Your task to perform on an android device: What's on my calendar today? Image 0: 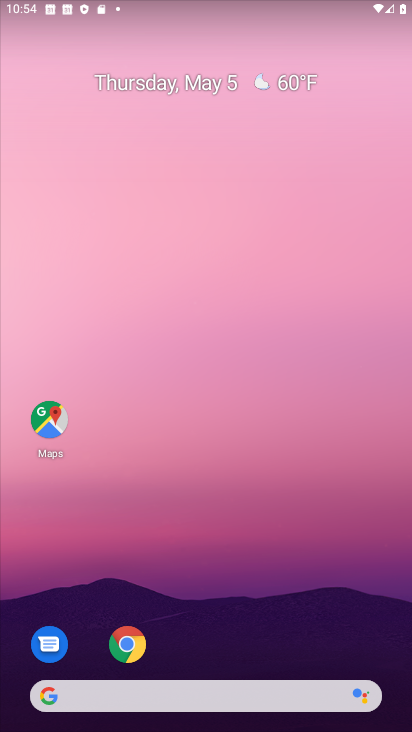
Step 0: drag from (200, 629) to (291, 172)
Your task to perform on an android device: What's on my calendar today? Image 1: 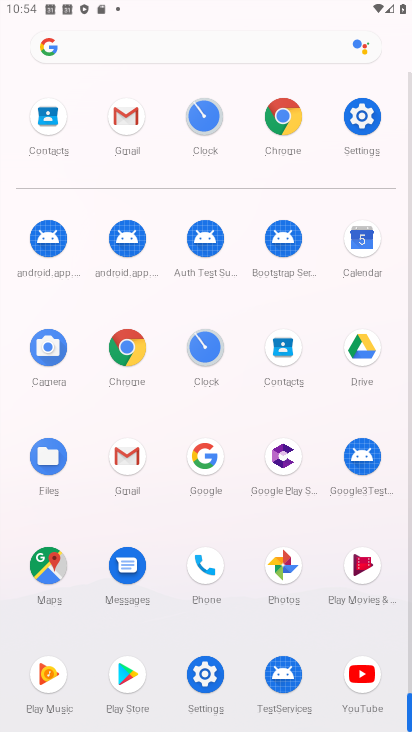
Step 1: click (358, 248)
Your task to perform on an android device: What's on my calendar today? Image 2: 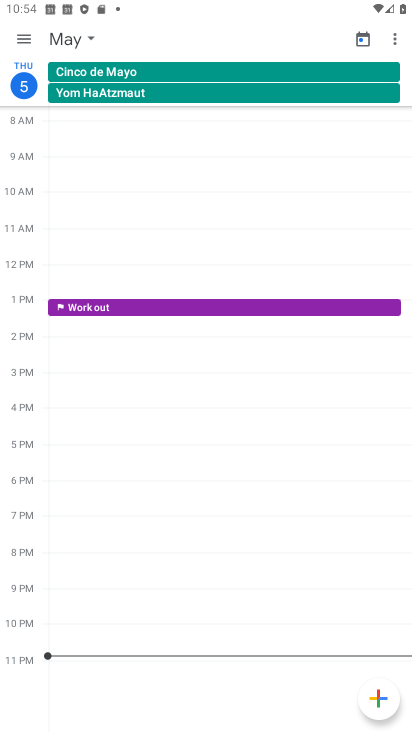
Step 2: click (23, 35)
Your task to perform on an android device: What's on my calendar today? Image 3: 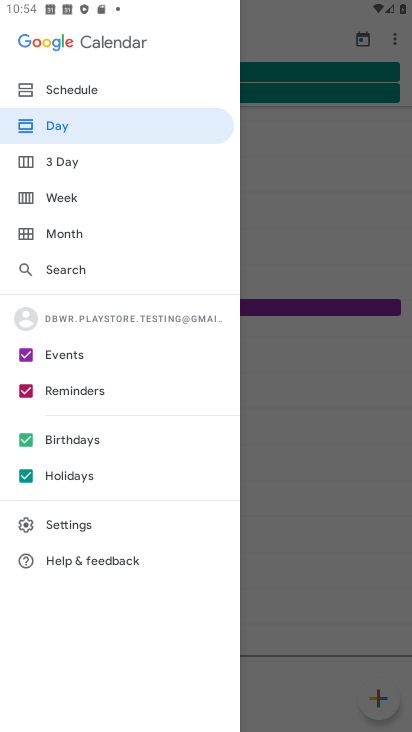
Step 3: click (260, 36)
Your task to perform on an android device: What's on my calendar today? Image 4: 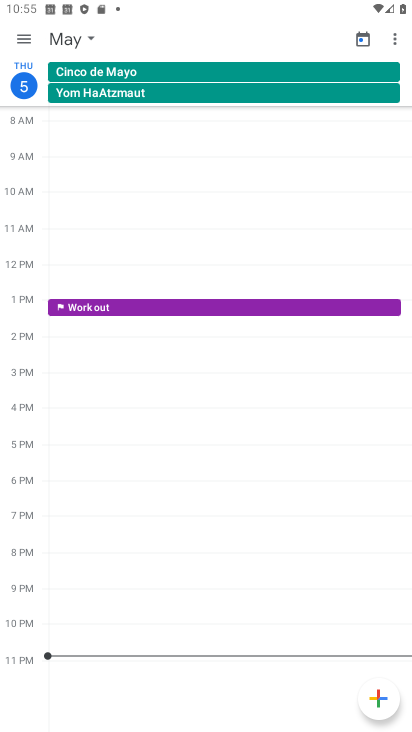
Step 4: click (79, 40)
Your task to perform on an android device: What's on my calendar today? Image 5: 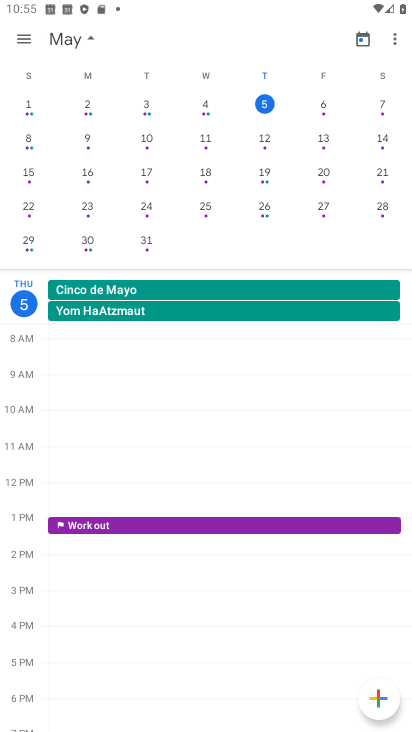
Step 5: click (261, 102)
Your task to perform on an android device: What's on my calendar today? Image 6: 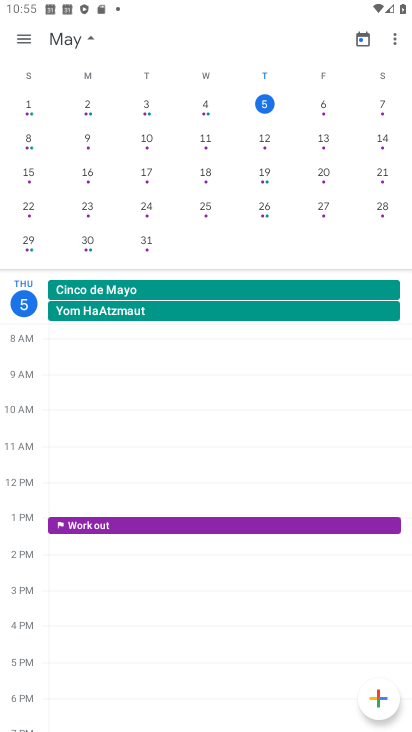
Step 6: task complete